Your task to perform on an android device: Open battery settings Image 0: 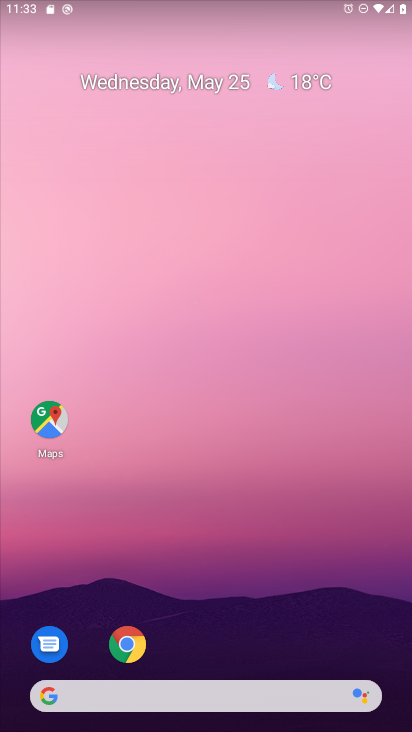
Step 0: press home button
Your task to perform on an android device: Open battery settings Image 1: 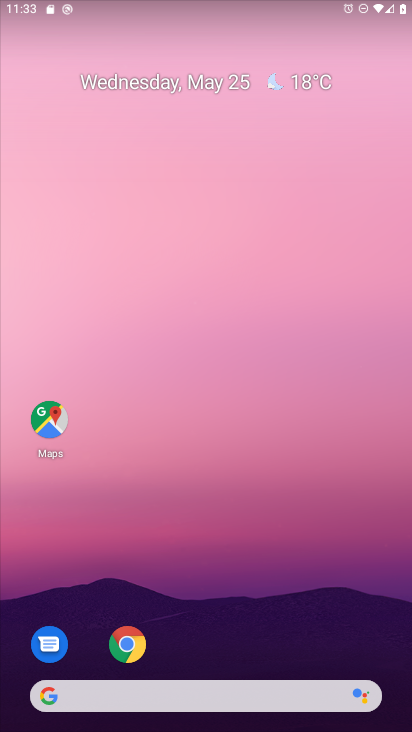
Step 1: drag from (270, 4) to (252, 558)
Your task to perform on an android device: Open battery settings Image 2: 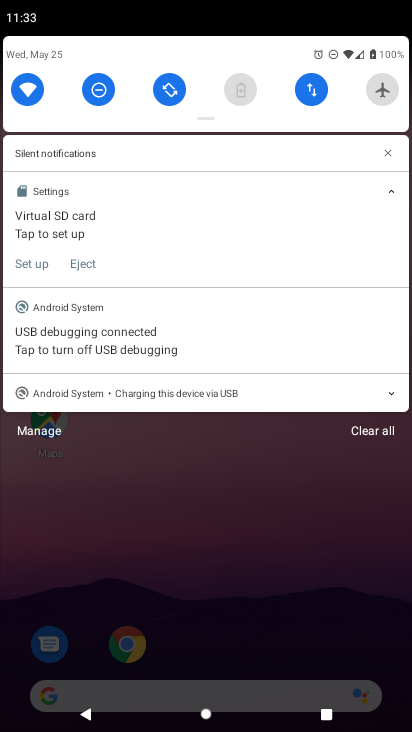
Step 2: drag from (227, 583) to (241, 126)
Your task to perform on an android device: Open battery settings Image 3: 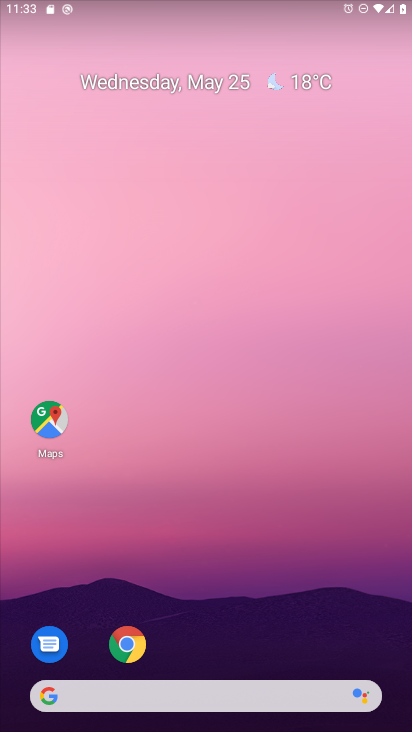
Step 3: drag from (222, 646) to (201, 133)
Your task to perform on an android device: Open battery settings Image 4: 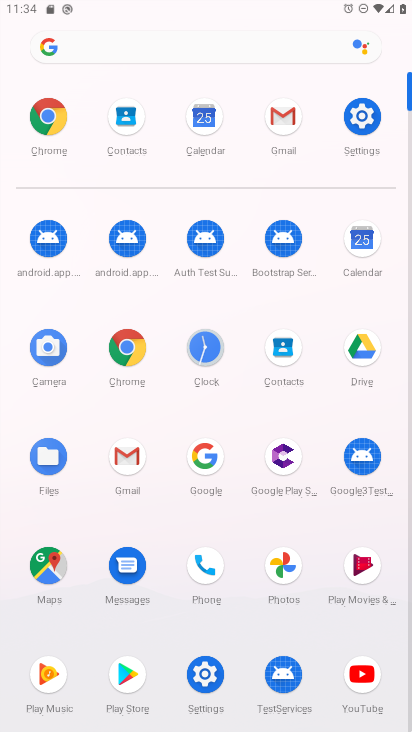
Step 4: click (361, 111)
Your task to perform on an android device: Open battery settings Image 5: 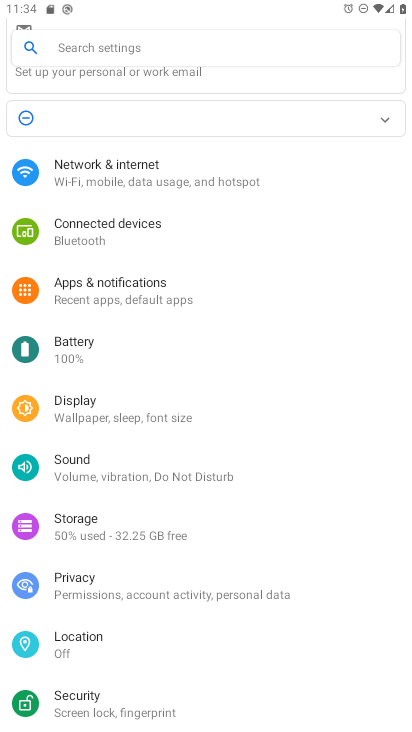
Step 5: click (106, 343)
Your task to perform on an android device: Open battery settings Image 6: 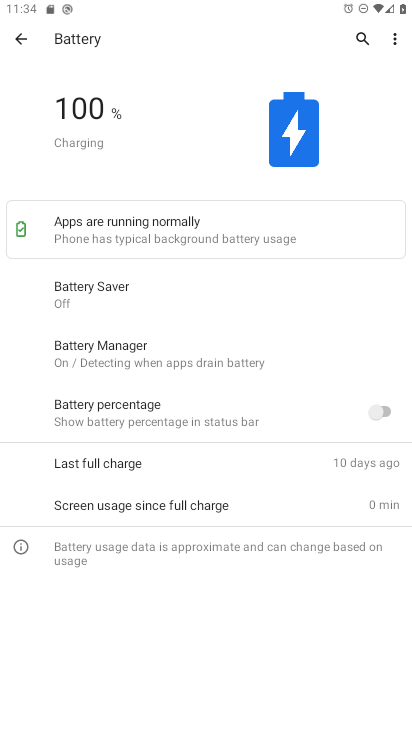
Step 6: task complete